Your task to perform on an android device: What's on my calendar tomorrow? Image 0: 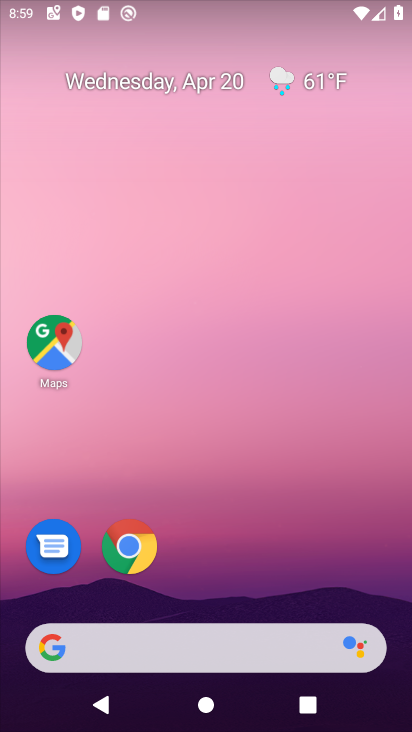
Step 0: drag from (214, 630) to (222, 77)
Your task to perform on an android device: What's on my calendar tomorrow? Image 1: 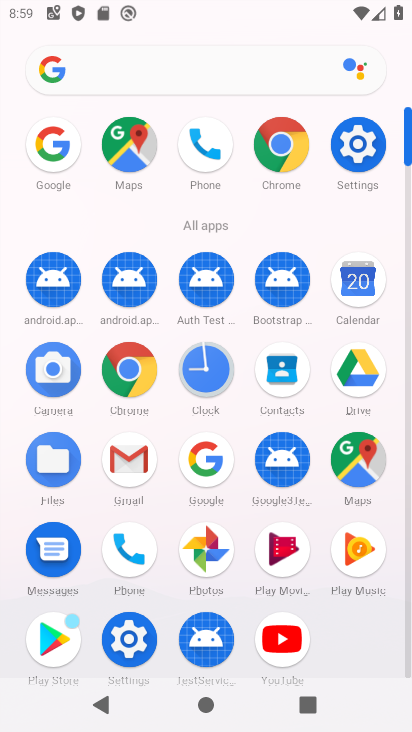
Step 1: click (354, 282)
Your task to perform on an android device: What's on my calendar tomorrow? Image 2: 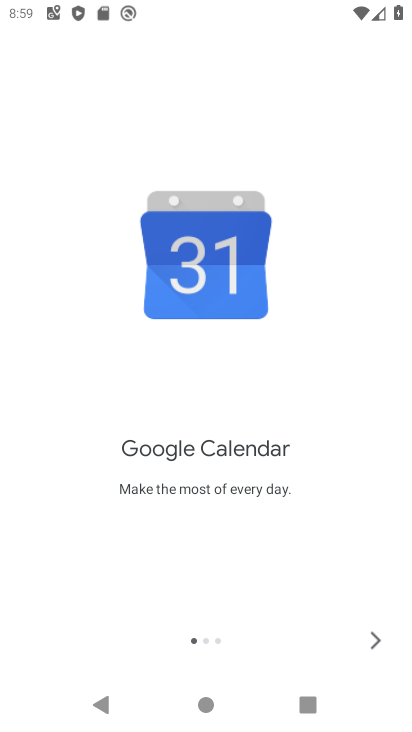
Step 2: click (371, 643)
Your task to perform on an android device: What's on my calendar tomorrow? Image 3: 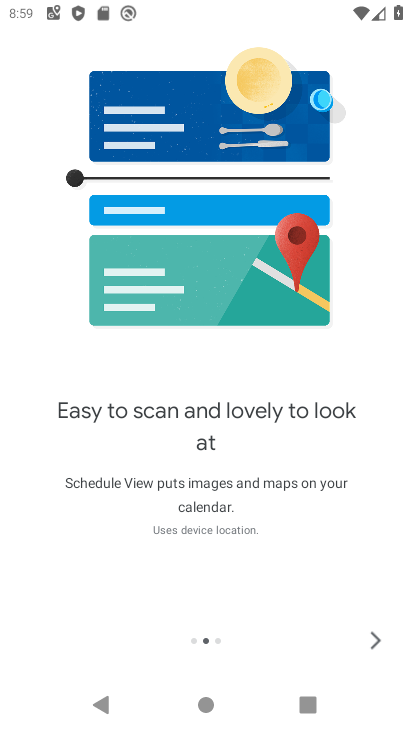
Step 3: click (372, 639)
Your task to perform on an android device: What's on my calendar tomorrow? Image 4: 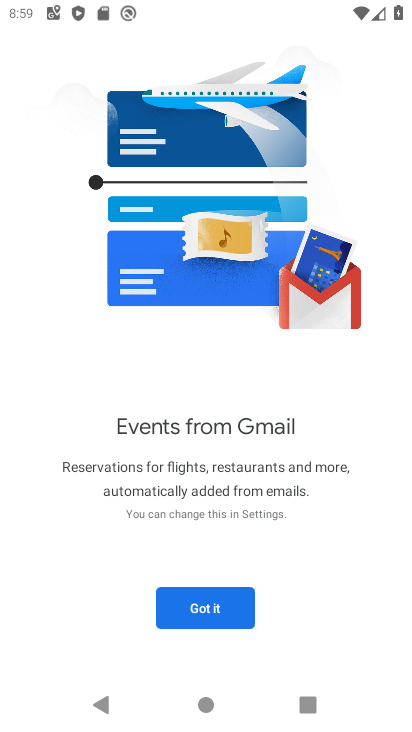
Step 4: click (219, 610)
Your task to perform on an android device: What's on my calendar tomorrow? Image 5: 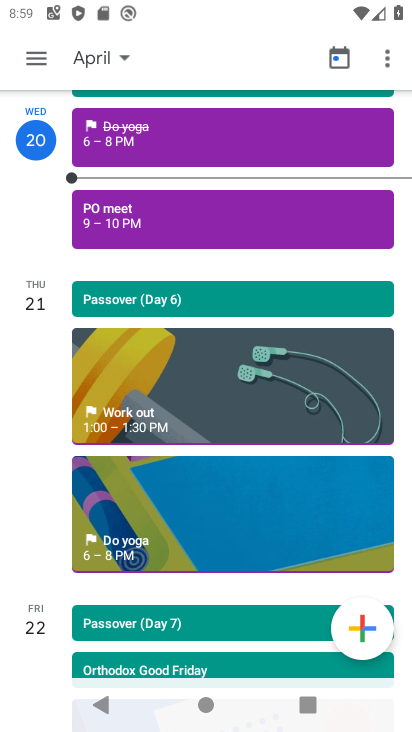
Step 5: click (98, 57)
Your task to perform on an android device: What's on my calendar tomorrow? Image 6: 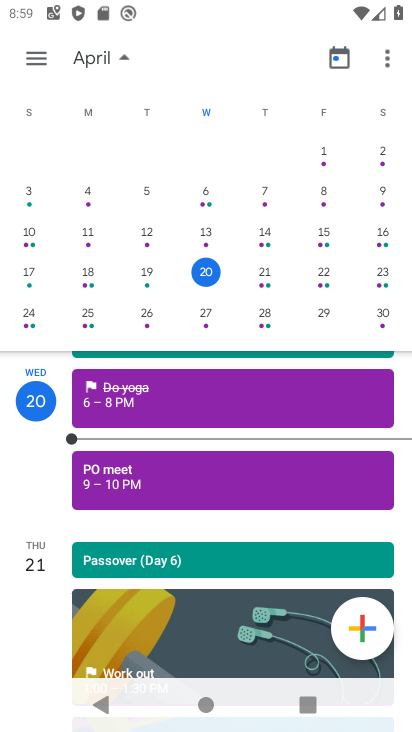
Step 6: click (260, 271)
Your task to perform on an android device: What's on my calendar tomorrow? Image 7: 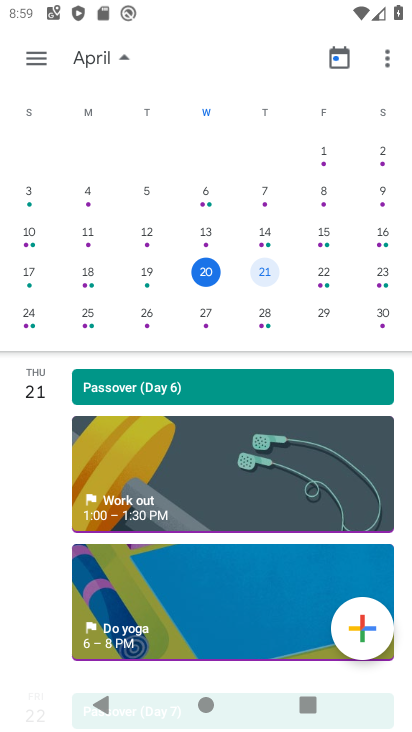
Step 7: task complete